Your task to perform on an android device: read, delete, or share a saved page in the chrome app Image 0: 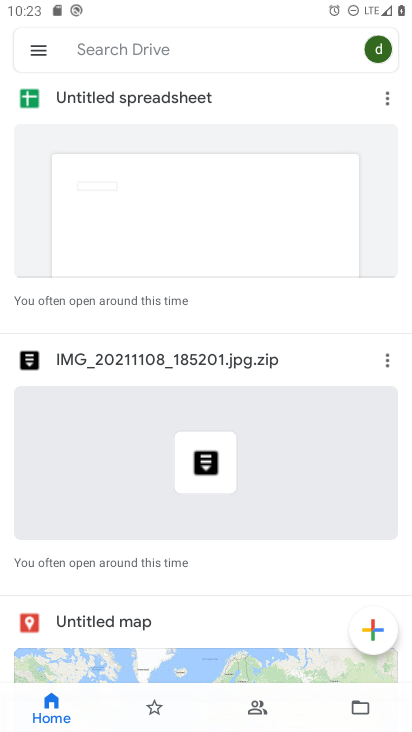
Step 0: press home button
Your task to perform on an android device: read, delete, or share a saved page in the chrome app Image 1: 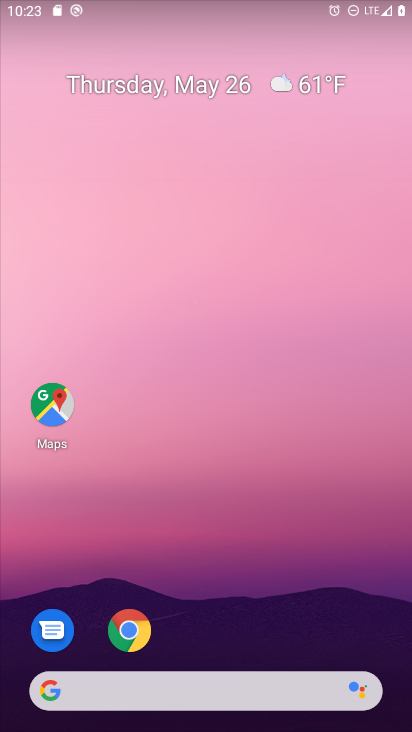
Step 1: click (138, 635)
Your task to perform on an android device: read, delete, or share a saved page in the chrome app Image 2: 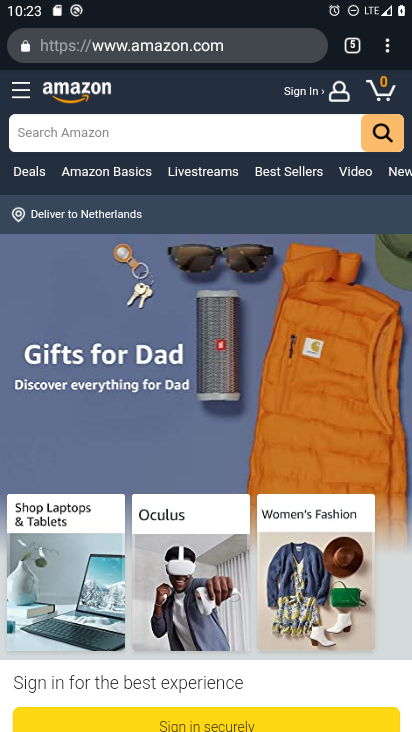
Step 2: click (387, 46)
Your task to perform on an android device: read, delete, or share a saved page in the chrome app Image 3: 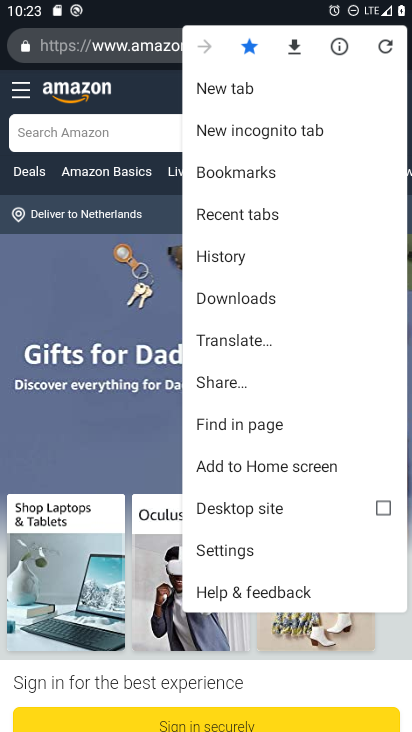
Step 3: click (239, 287)
Your task to perform on an android device: read, delete, or share a saved page in the chrome app Image 4: 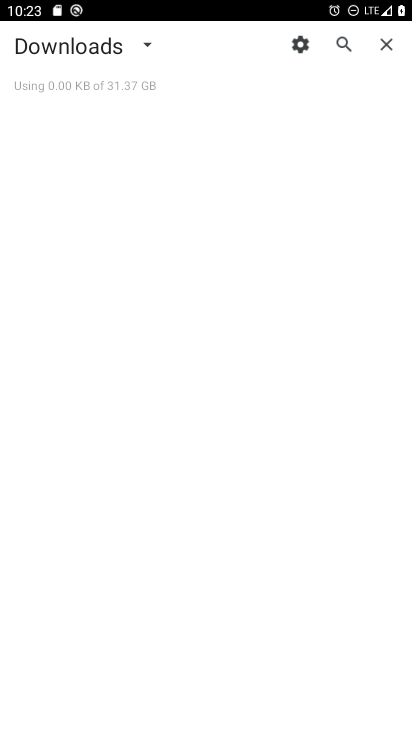
Step 4: task complete